Your task to perform on an android device: Go to Google maps Image 0: 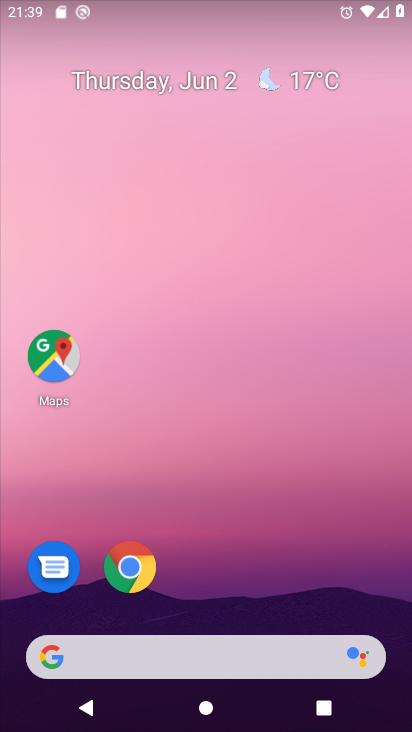
Step 0: click (58, 352)
Your task to perform on an android device: Go to Google maps Image 1: 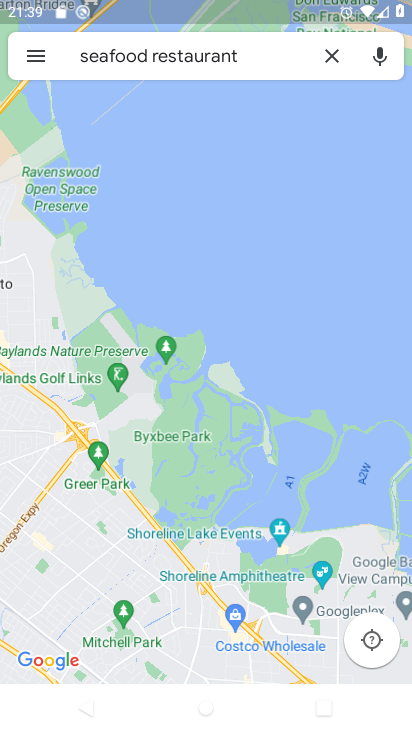
Step 1: task complete